Your task to perform on an android device: check android version Image 0: 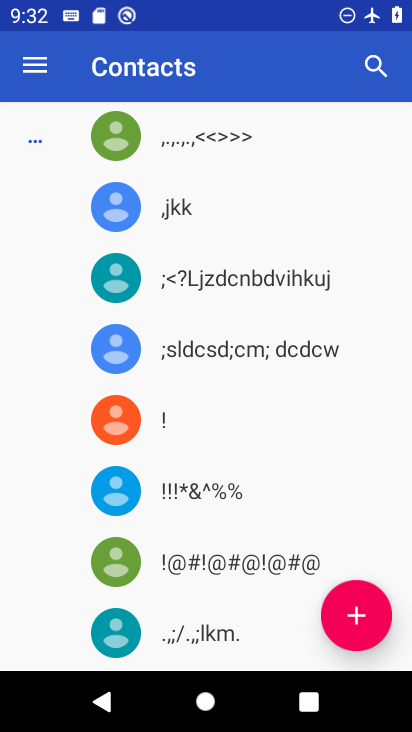
Step 0: press home button
Your task to perform on an android device: check android version Image 1: 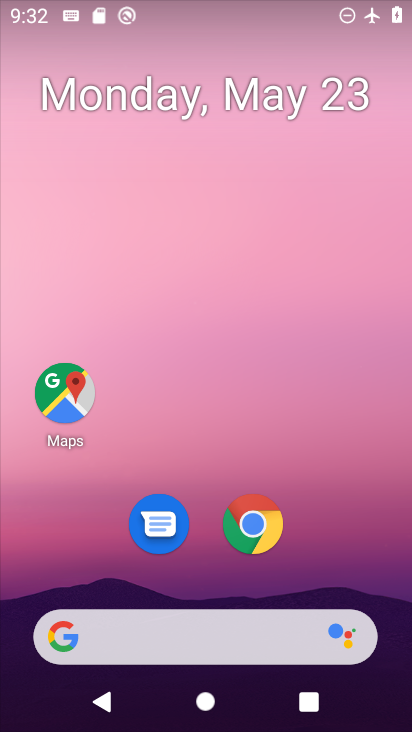
Step 1: drag from (211, 446) to (243, 3)
Your task to perform on an android device: check android version Image 2: 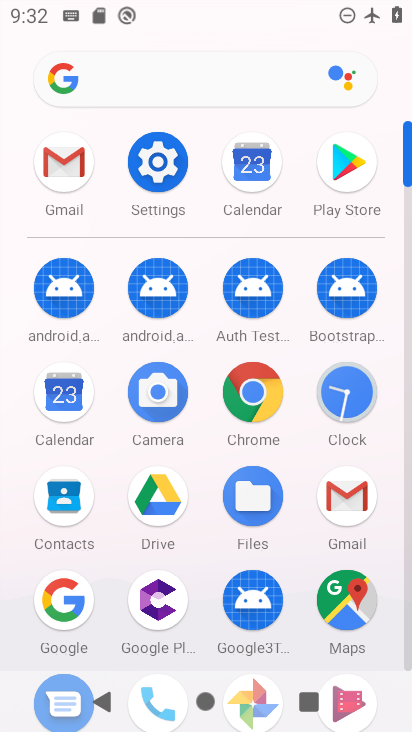
Step 2: click (178, 167)
Your task to perform on an android device: check android version Image 3: 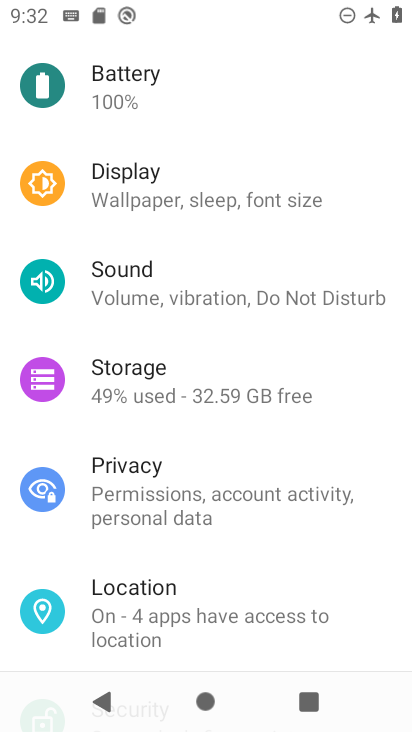
Step 3: drag from (223, 583) to (289, 85)
Your task to perform on an android device: check android version Image 4: 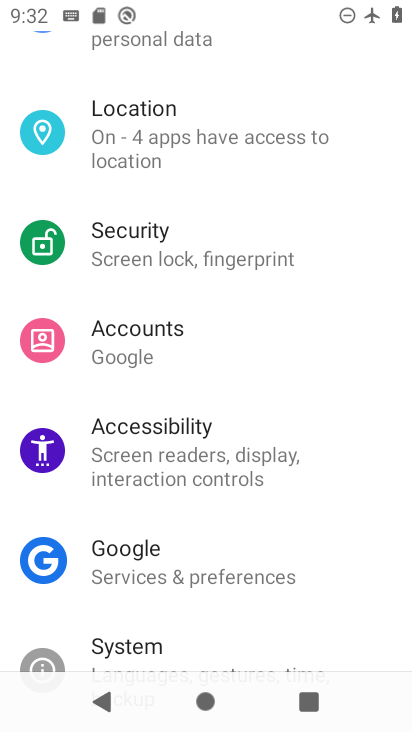
Step 4: drag from (250, 497) to (244, 143)
Your task to perform on an android device: check android version Image 5: 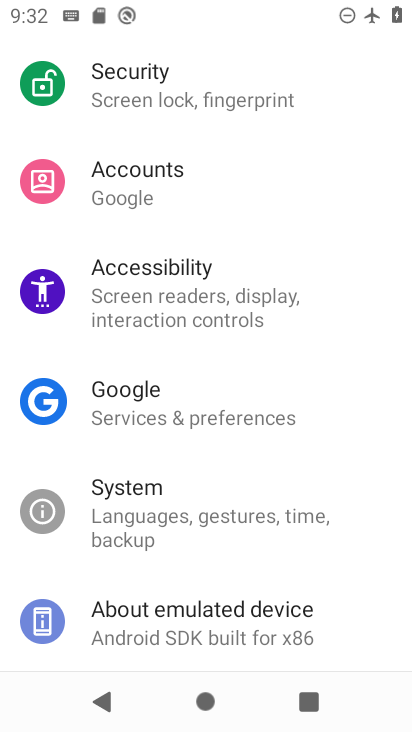
Step 5: click (227, 614)
Your task to perform on an android device: check android version Image 6: 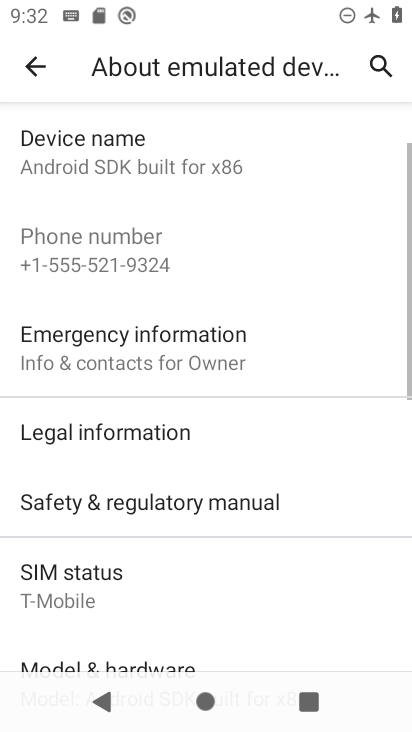
Step 6: task complete